Your task to perform on an android device: change notifications settings Image 0: 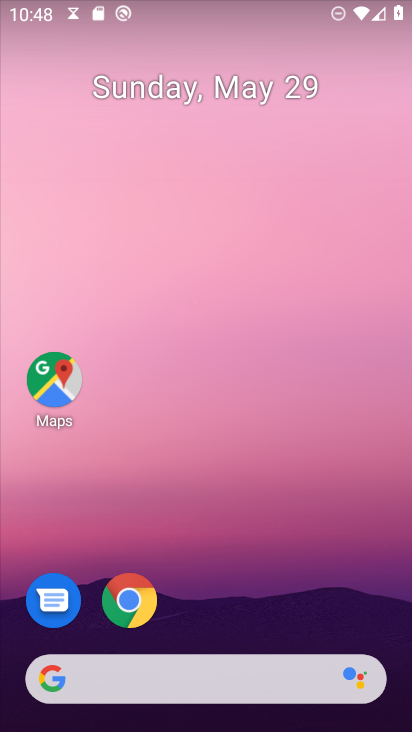
Step 0: drag from (202, 636) to (236, 156)
Your task to perform on an android device: change notifications settings Image 1: 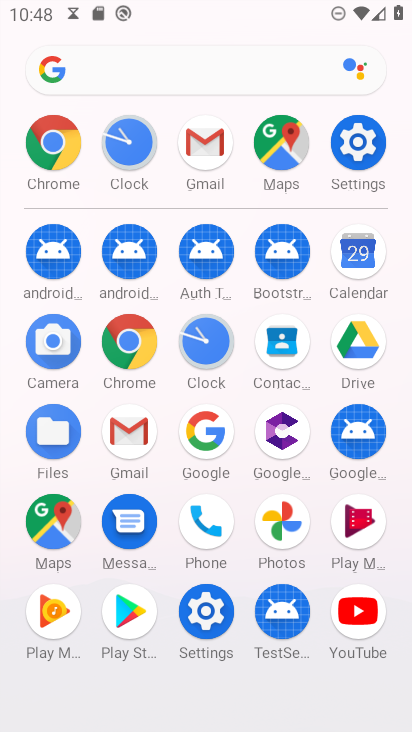
Step 1: click (359, 143)
Your task to perform on an android device: change notifications settings Image 2: 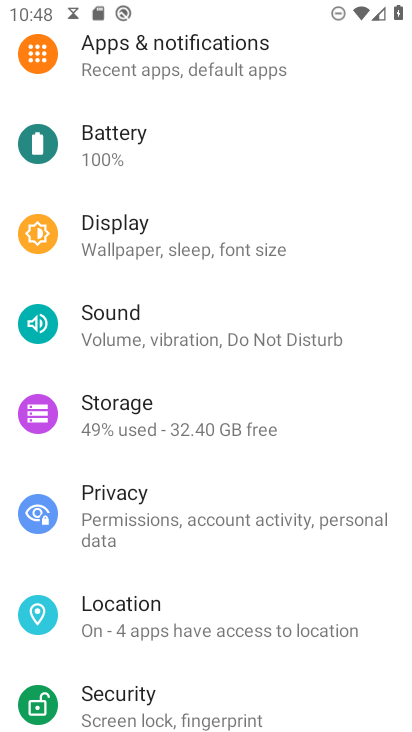
Step 2: click (160, 61)
Your task to perform on an android device: change notifications settings Image 3: 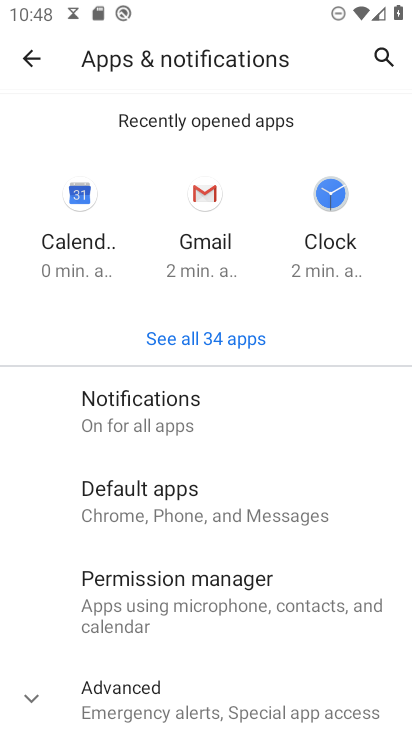
Step 3: click (130, 413)
Your task to perform on an android device: change notifications settings Image 4: 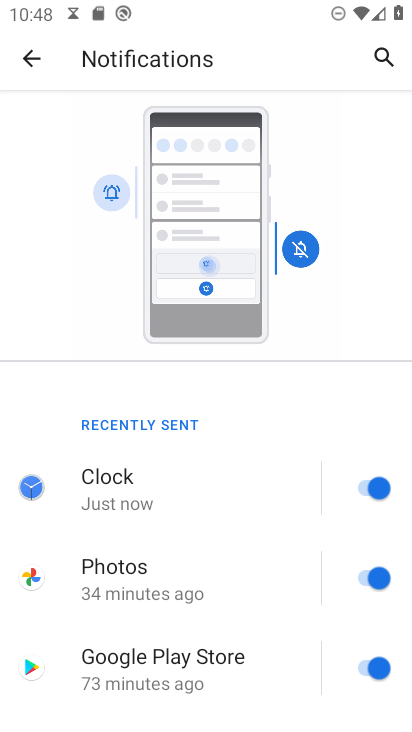
Step 4: drag from (187, 711) to (178, 222)
Your task to perform on an android device: change notifications settings Image 5: 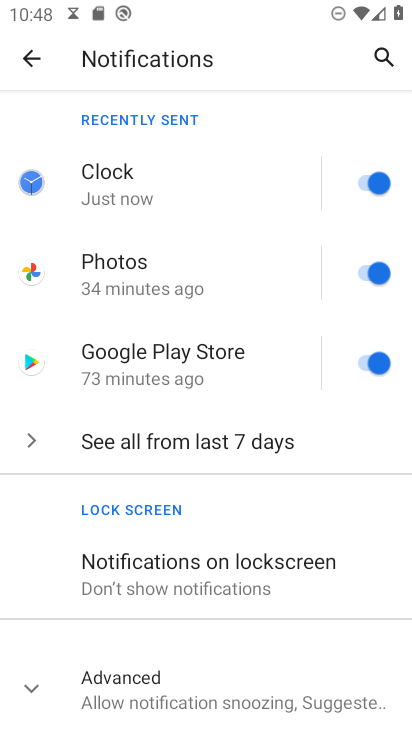
Step 5: click (116, 685)
Your task to perform on an android device: change notifications settings Image 6: 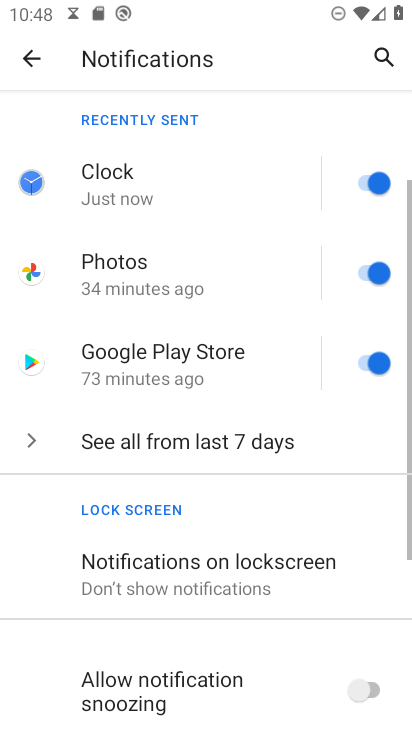
Step 6: drag from (237, 706) to (238, 352)
Your task to perform on an android device: change notifications settings Image 7: 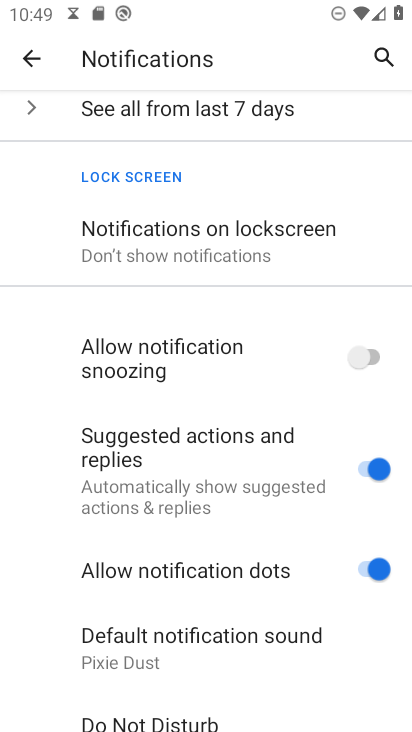
Step 7: drag from (170, 662) to (170, 433)
Your task to perform on an android device: change notifications settings Image 8: 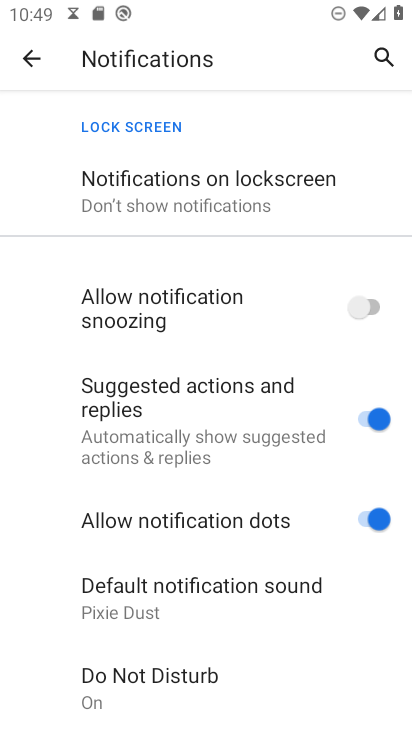
Step 8: drag from (195, 677) to (194, 448)
Your task to perform on an android device: change notifications settings Image 9: 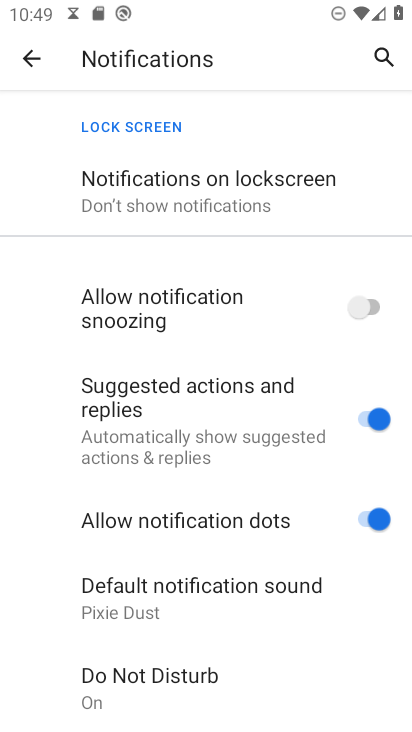
Step 9: drag from (156, 186) to (173, 519)
Your task to perform on an android device: change notifications settings Image 10: 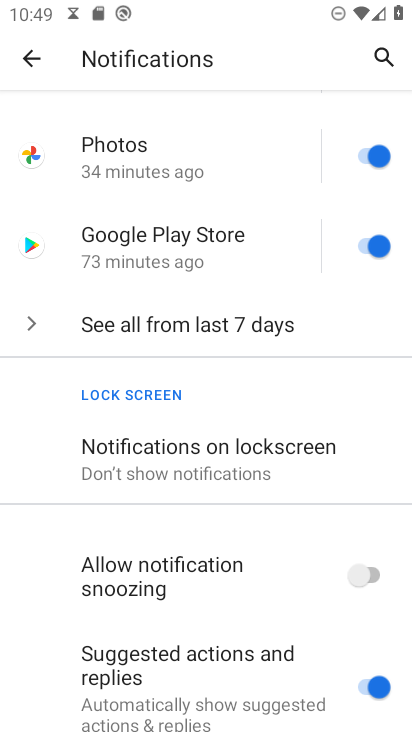
Step 10: drag from (177, 265) to (176, 606)
Your task to perform on an android device: change notifications settings Image 11: 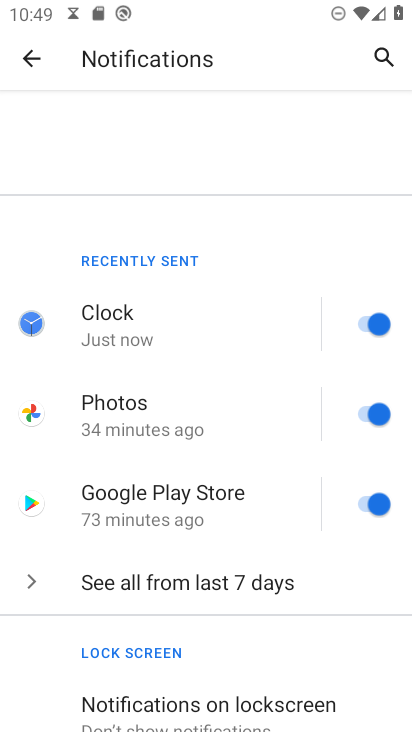
Step 11: drag from (187, 678) to (182, 288)
Your task to perform on an android device: change notifications settings Image 12: 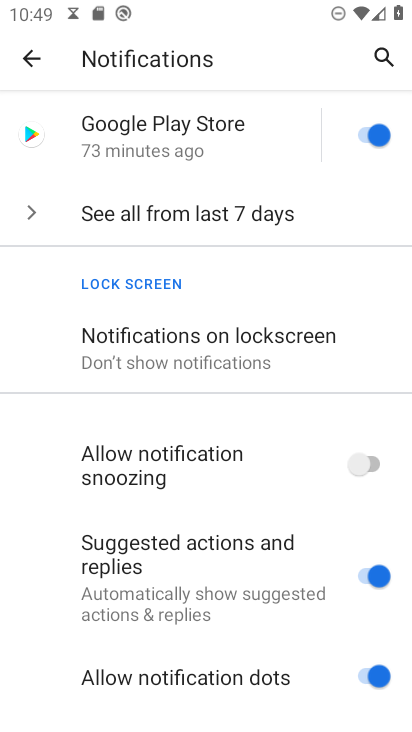
Step 12: click (369, 461)
Your task to perform on an android device: change notifications settings Image 13: 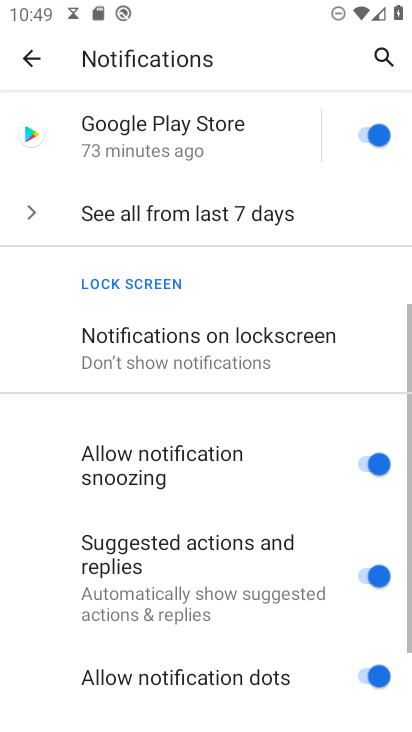
Step 13: task complete